Your task to perform on an android device: open sync settings in chrome Image 0: 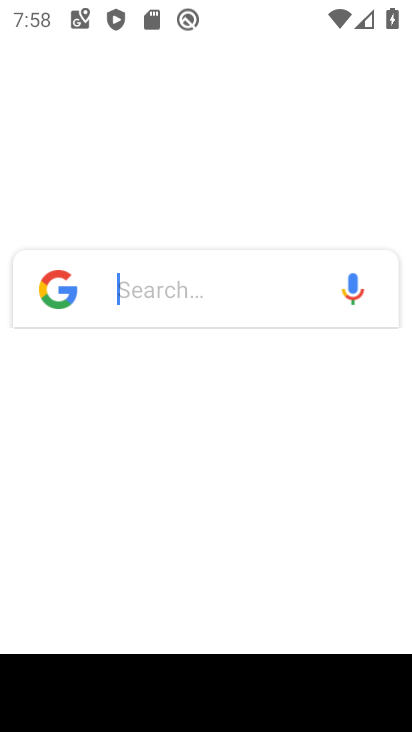
Step 0: drag from (251, 545) to (290, 371)
Your task to perform on an android device: open sync settings in chrome Image 1: 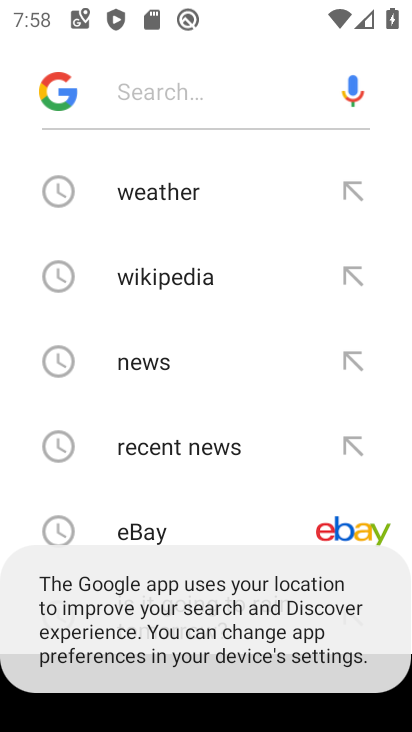
Step 1: press home button
Your task to perform on an android device: open sync settings in chrome Image 2: 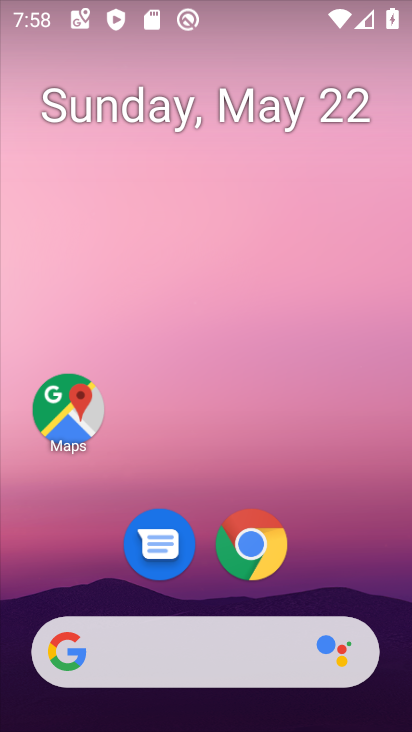
Step 2: click (240, 534)
Your task to perform on an android device: open sync settings in chrome Image 3: 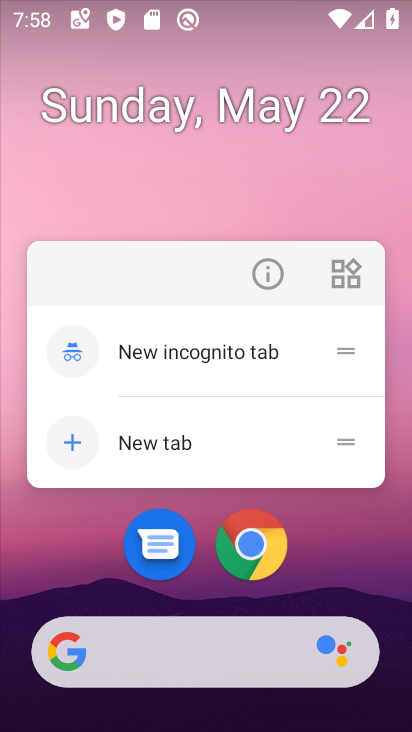
Step 3: click (258, 539)
Your task to perform on an android device: open sync settings in chrome Image 4: 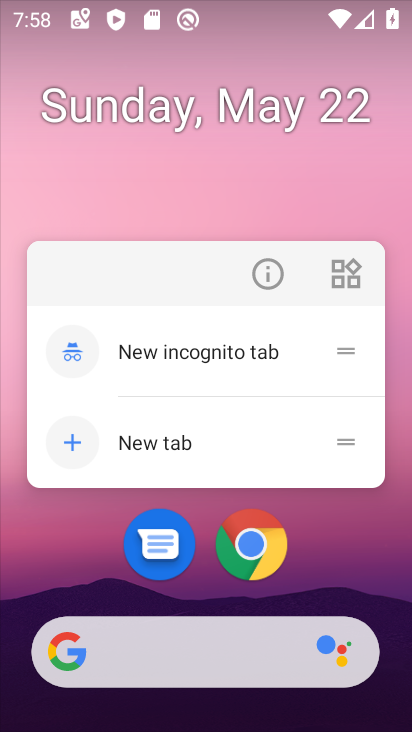
Step 4: click (255, 552)
Your task to perform on an android device: open sync settings in chrome Image 5: 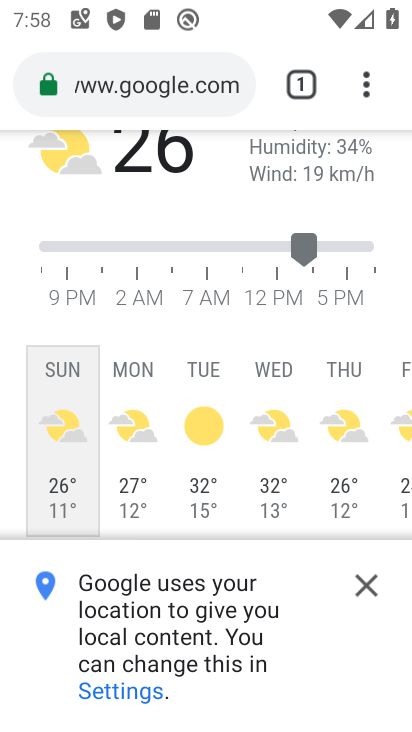
Step 5: drag from (370, 73) to (131, 611)
Your task to perform on an android device: open sync settings in chrome Image 6: 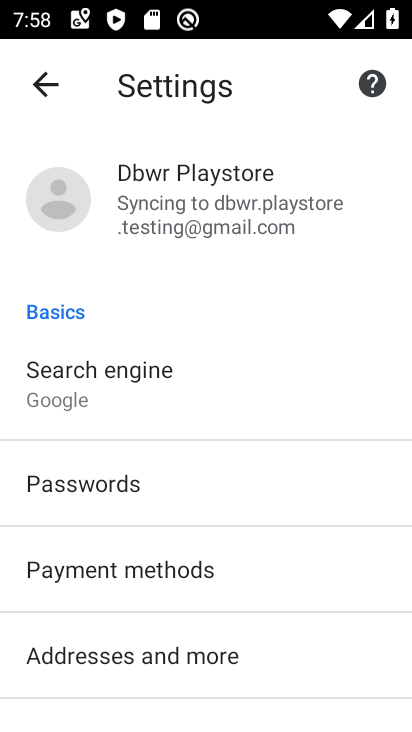
Step 6: click (210, 250)
Your task to perform on an android device: open sync settings in chrome Image 7: 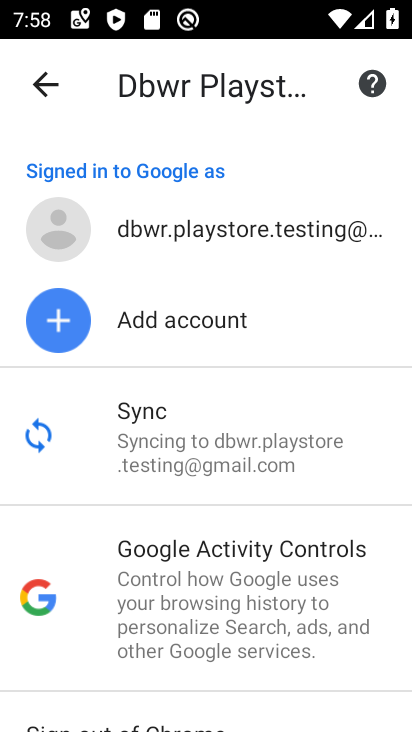
Step 7: click (261, 427)
Your task to perform on an android device: open sync settings in chrome Image 8: 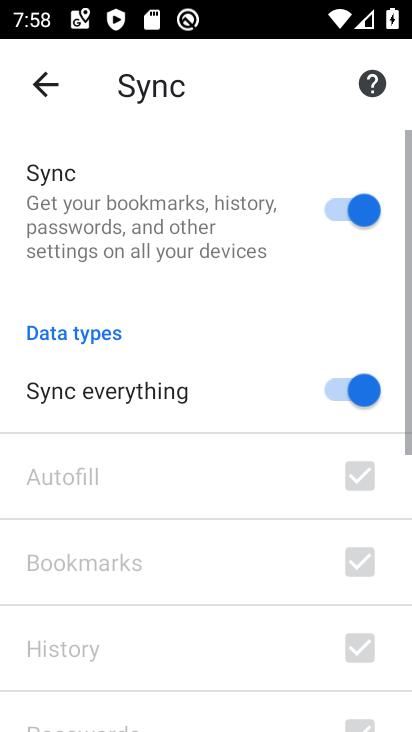
Step 8: task complete